Your task to perform on an android device: open a new tab in the chrome app Image 0: 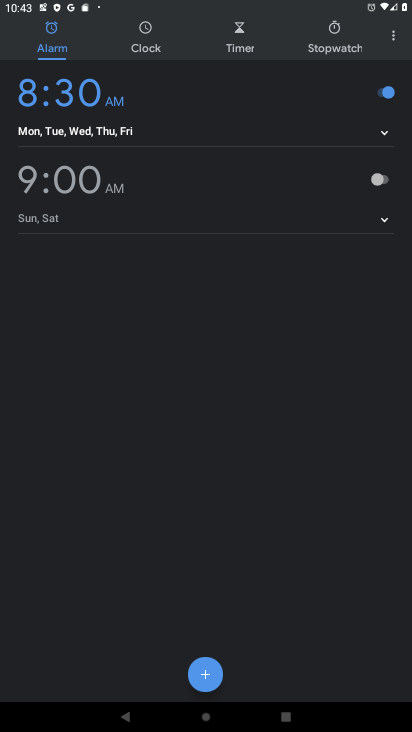
Step 0: press home button
Your task to perform on an android device: open a new tab in the chrome app Image 1: 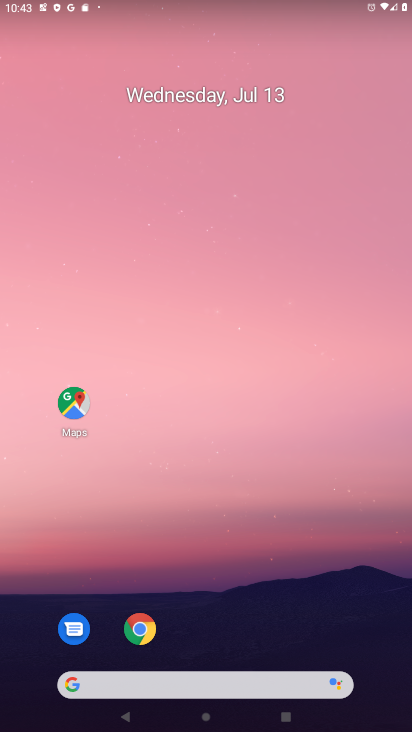
Step 1: drag from (250, 632) to (221, 259)
Your task to perform on an android device: open a new tab in the chrome app Image 2: 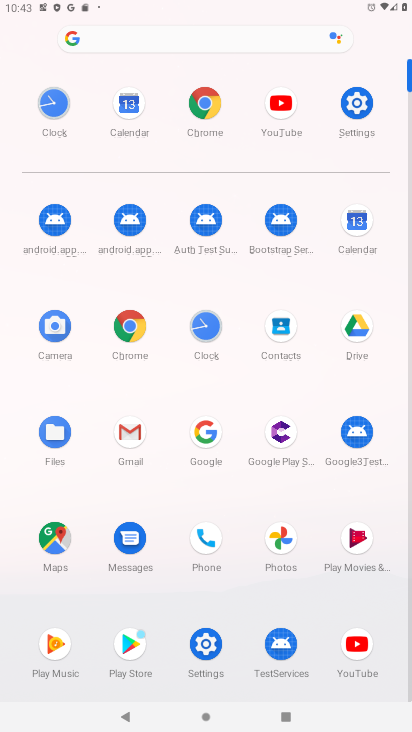
Step 2: click (214, 119)
Your task to perform on an android device: open a new tab in the chrome app Image 3: 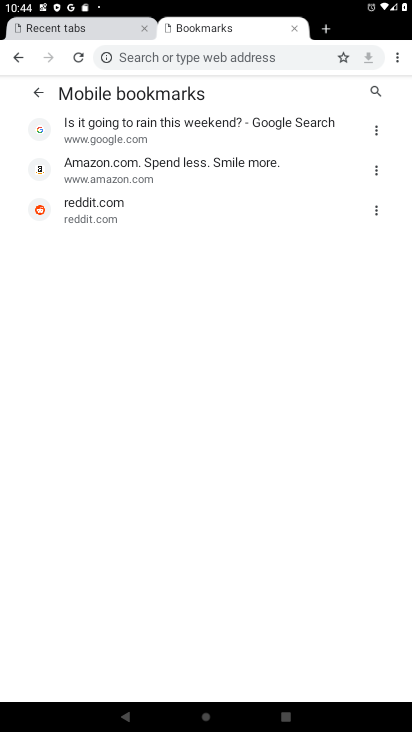
Step 3: click (319, 34)
Your task to perform on an android device: open a new tab in the chrome app Image 4: 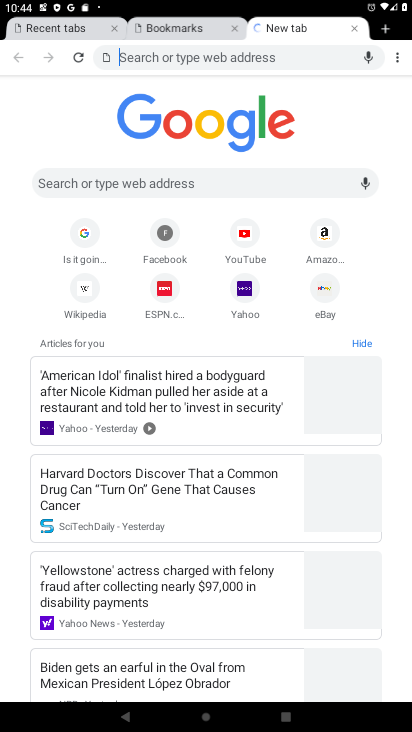
Step 4: task complete